Your task to perform on an android device: Go to eBay Image 0: 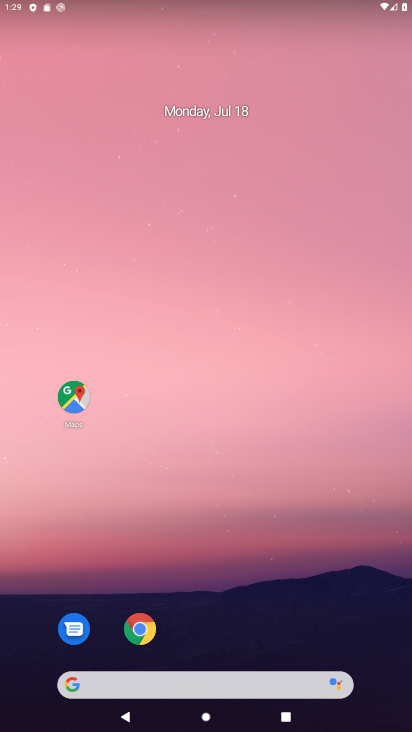
Step 0: press home button
Your task to perform on an android device: Go to eBay Image 1: 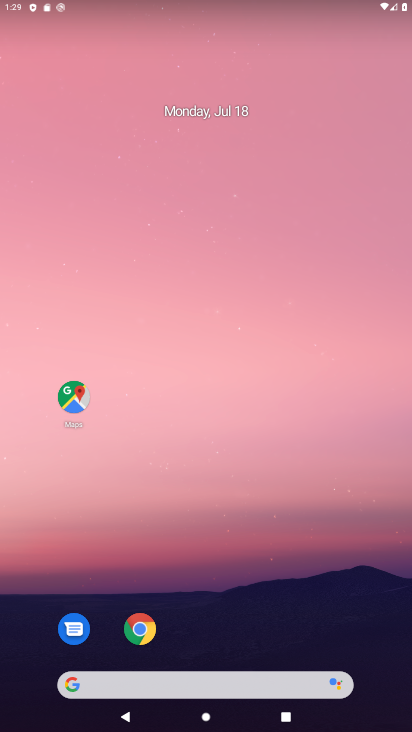
Step 1: click (140, 627)
Your task to perform on an android device: Go to eBay Image 2: 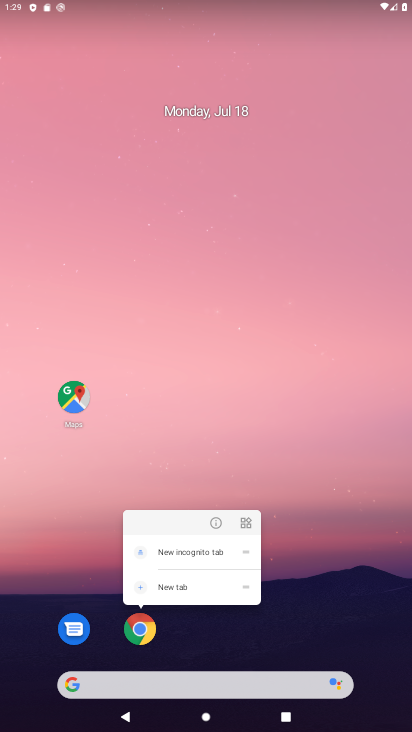
Step 2: click (142, 627)
Your task to perform on an android device: Go to eBay Image 3: 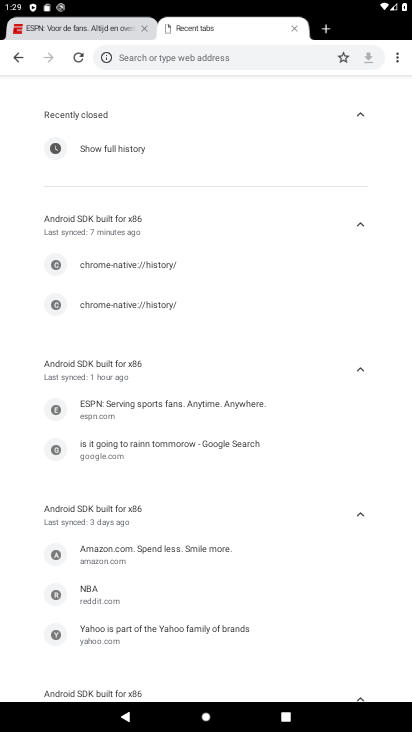
Step 3: click (330, 27)
Your task to perform on an android device: Go to eBay Image 4: 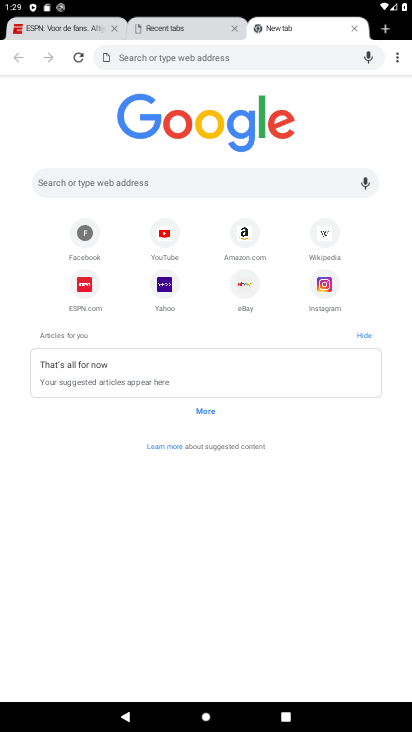
Step 4: click (243, 285)
Your task to perform on an android device: Go to eBay Image 5: 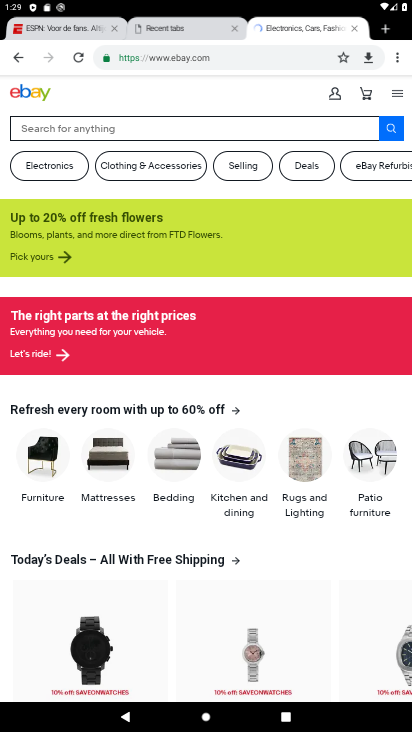
Step 5: task complete